Your task to perform on an android device: remove spam from my inbox in the gmail app Image 0: 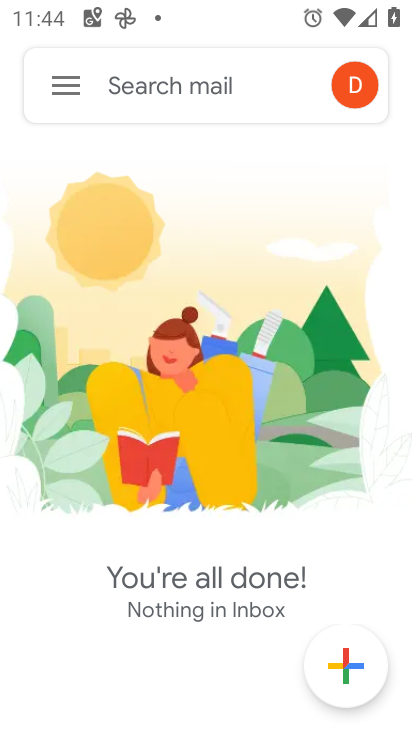
Step 0: press home button
Your task to perform on an android device: remove spam from my inbox in the gmail app Image 1: 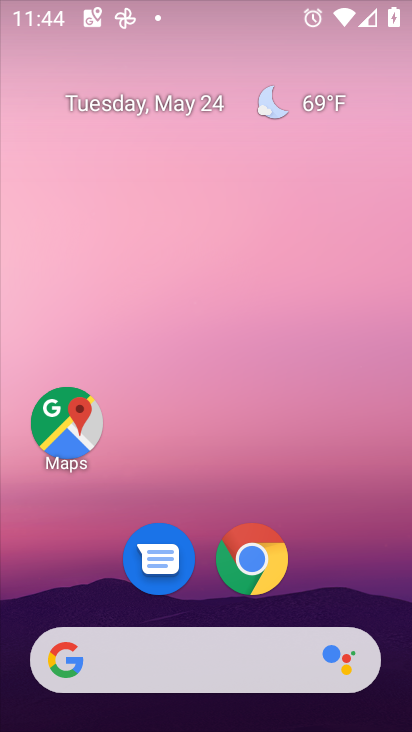
Step 1: drag from (388, 680) to (325, 122)
Your task to perform on an android device: remove spam from my inbox in the gmail app Image 2: 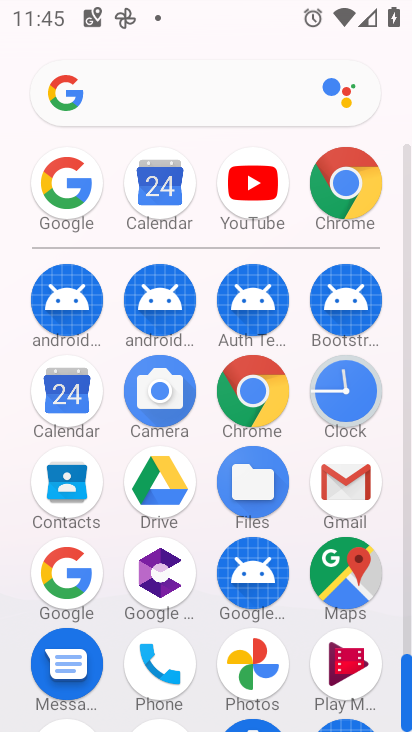
Step 2: click (356, 491)
Your task to perform on an android device: remove spam from my inbox in the gmail app Image 3: 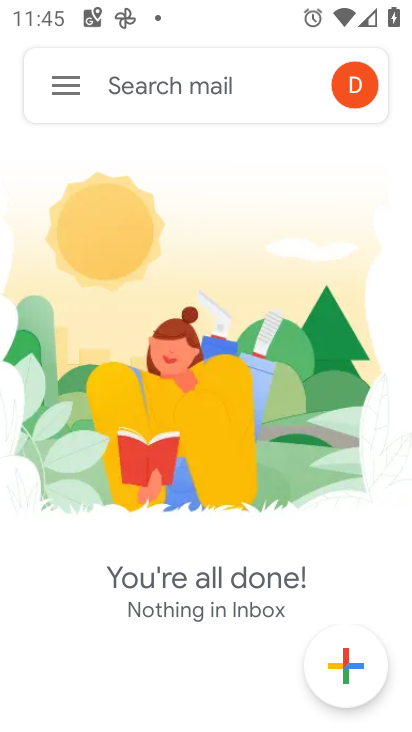
Step 3: click (75, 84)
Your task to perform on an android device: remove spam from my inbox in the gmail app Image 4: 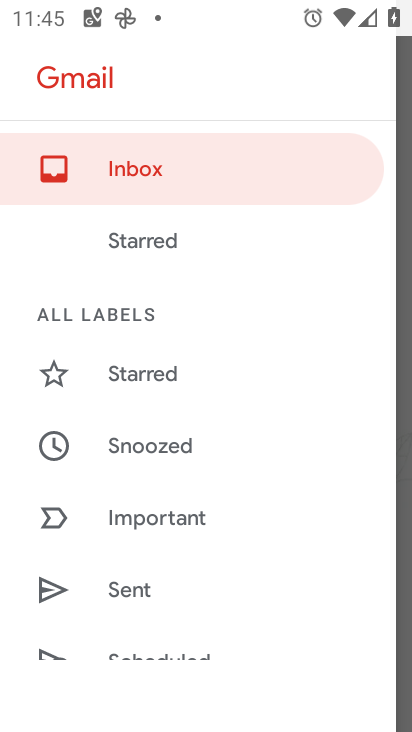
Step 4: drag from (135, 628) to (191, 207)
Your task to perform on an android device: remove spam from my inbox in the gmail app Image 5: 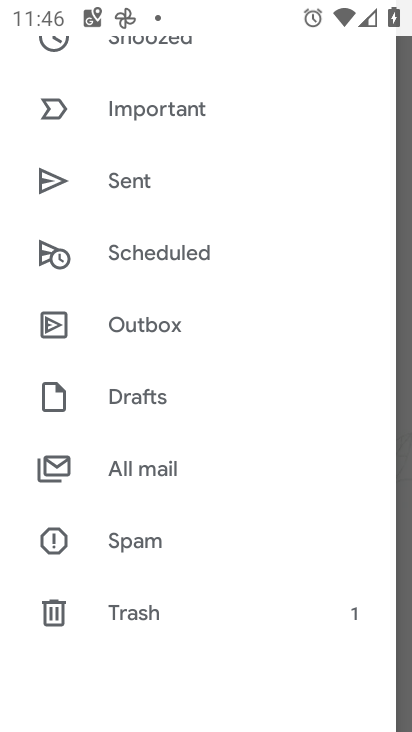
Step 5: click (161, 549)
Your task to perform on an android device: remove spam from my inbox in the gmail app Image 6: 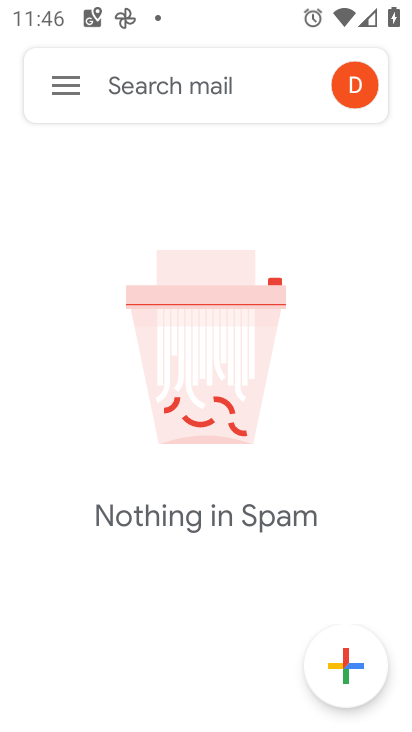
Step 6: task complete